Your task to perform on an android device: Show me recent news Image 0: 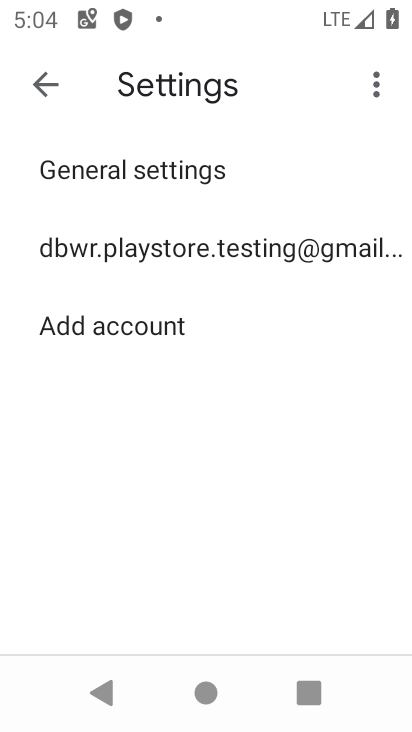
Step 0: press home button
Your task to perform on an android device: Show me recent news Image 1: 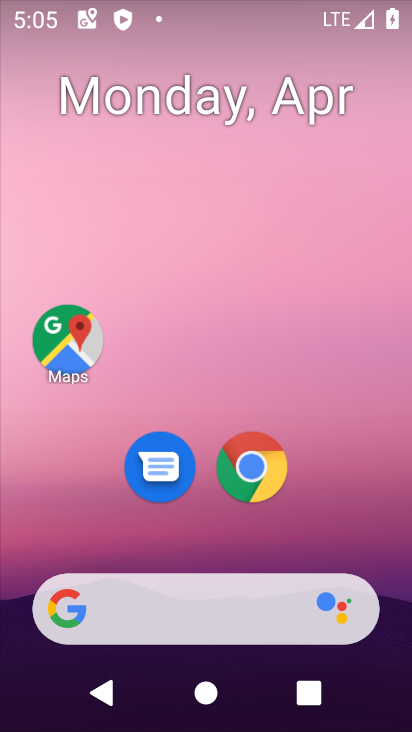
Step 1: drag from (329, 506) to (365, 12)
Your task to perform on an android device: Show me recent news Image 2: 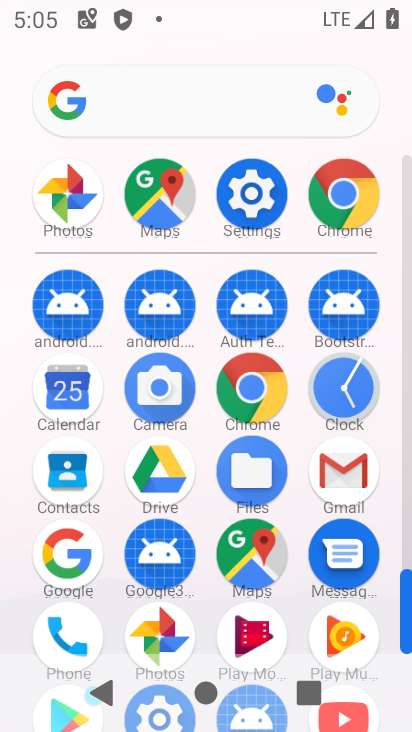
Step 2: click (266, 391)
Your task to perform on an android device: Show me recent news Image 3: 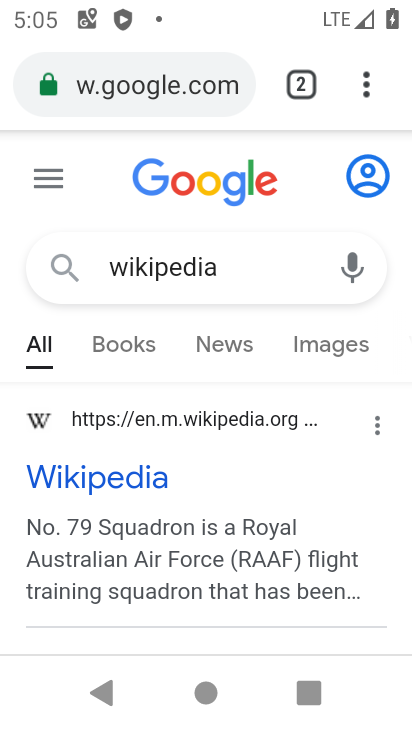
Step 3: click (228, 76)
Your task to perform on an android device: Show me recent news Image 4: 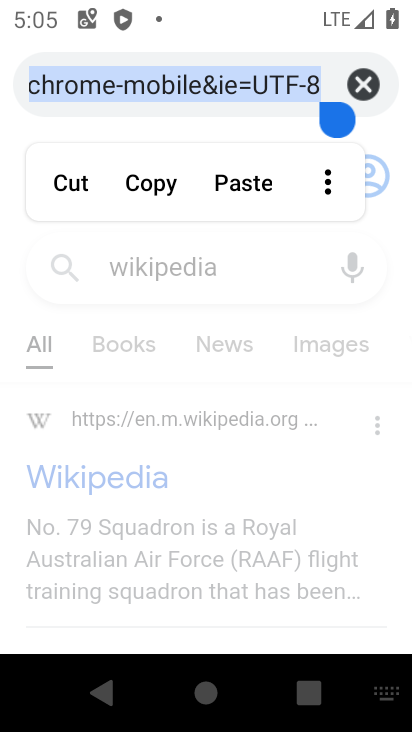
Step 4: click (361, 84)
Your task to perform on an android device: Show me recent news Image 5: 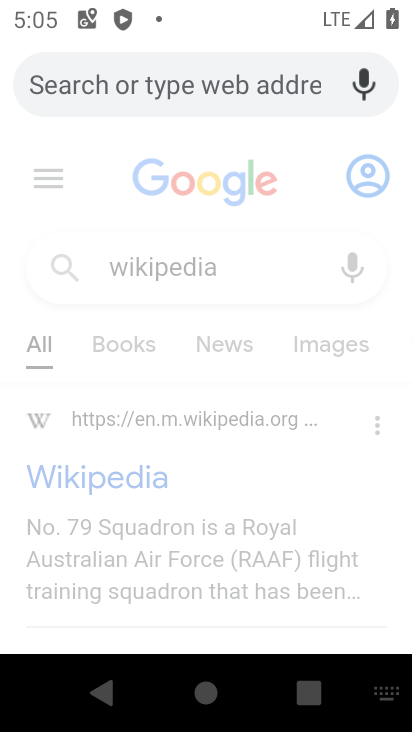
Step 5: type "recent news"
Your task to perform on an android device: Show me recent news Image 6: 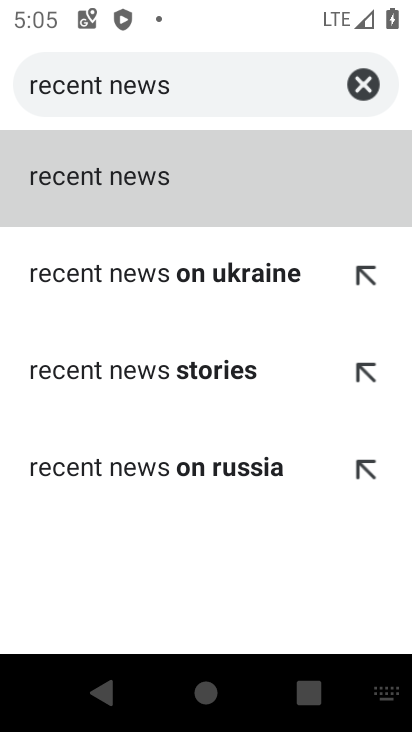
Step 6: click (197, 191)
Your task to perform on an android device: Show me recent news Image 7: 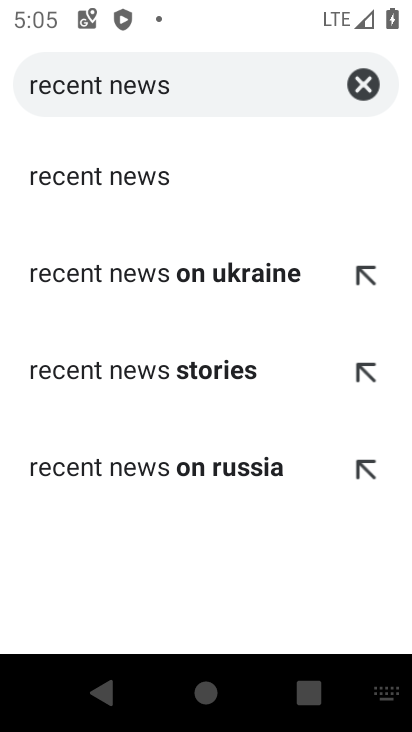
Step 7: click (134, 187)
Your task to perform on an android device: Show me recent news Image 8: 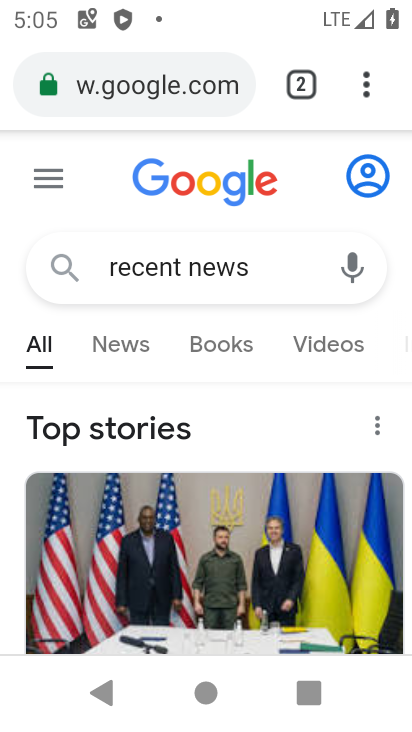
Step 8: task complete